Your task to perform on an android device: clear all cookies in the chrome app Image 0: 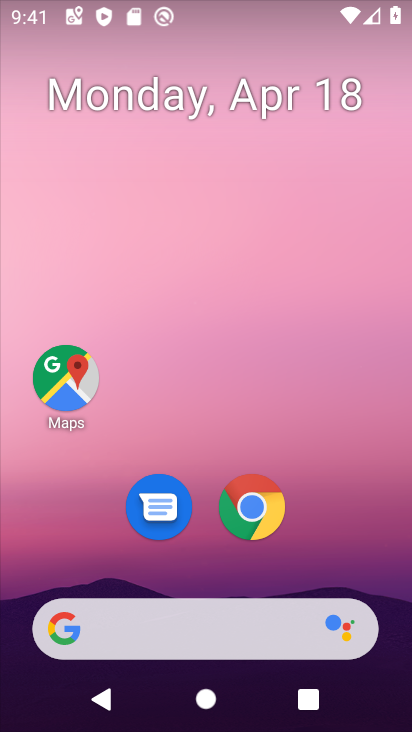
Step 0: click (268, 128)
Your task to perform on an android device: clear all cookies in the chrome app Image 1: 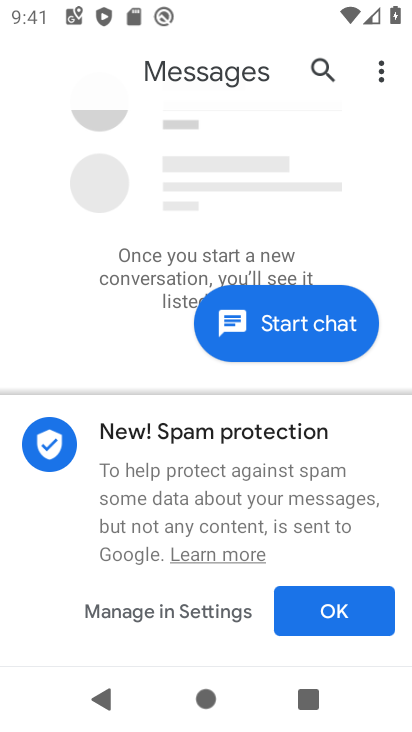
Step 1: press back button
Your task to perform on an android device: clear all cookies in the chrome app Image 2: 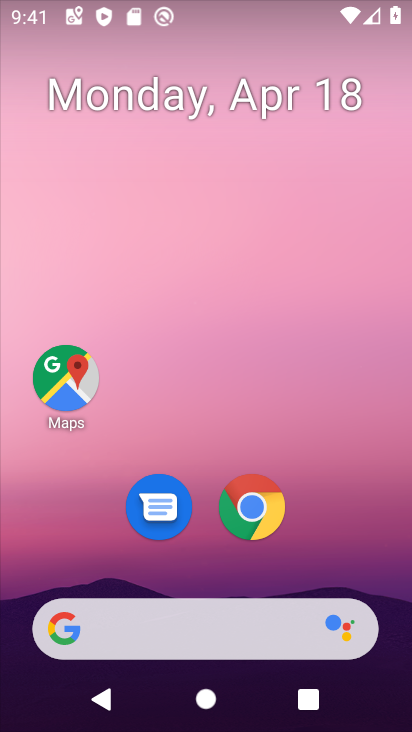
Step 2: drag from (260, 107) to (266, 4)
Your task to perform on an android device: clear all cookies in the chrome app Image 3: 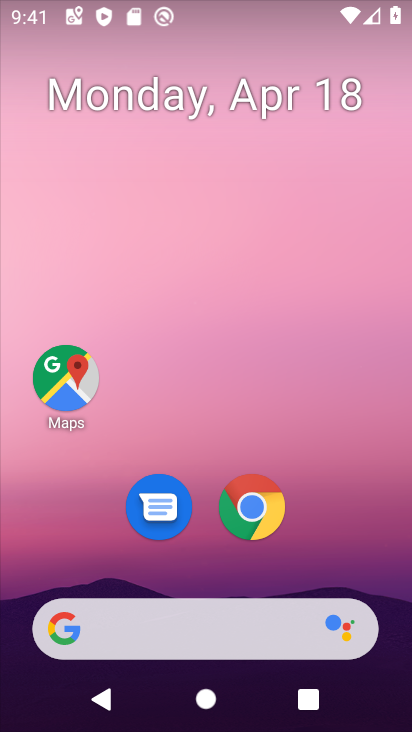
Step 3: drag from (220, 348) to (277, 14)
Your task to perform on an android device: clear all cookies in the chrome app Image 4: 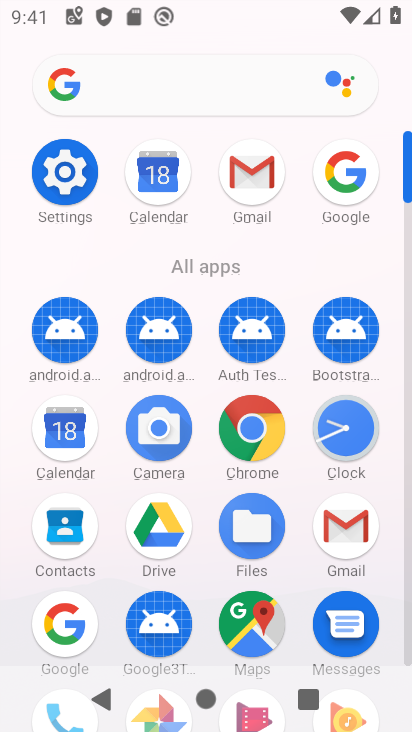
Step 4: click (246, 418)
Your task to perform on an android device: clear all cookies in the chrome app Image 5: 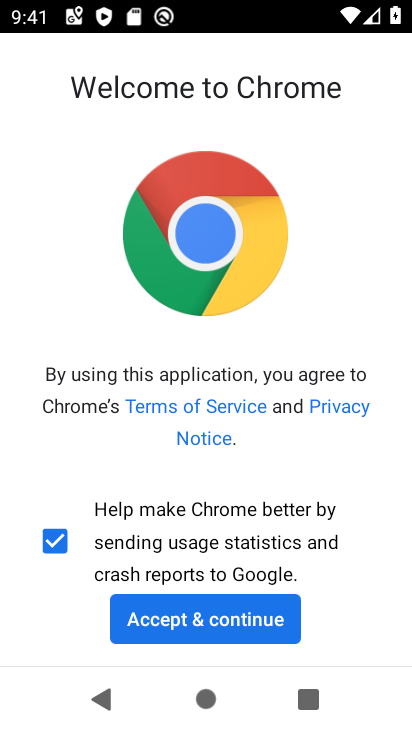
Step 5: click (220, 617)
Your task to perform on an android device: clear all cookies in the chrome app Image 6: 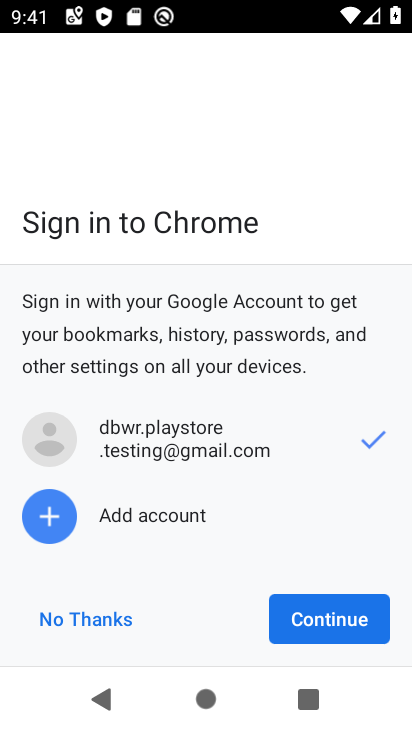
Step 6: click (345, 620)
Your task to perform on an android device: clear all cookies in the chrome app Image 7: 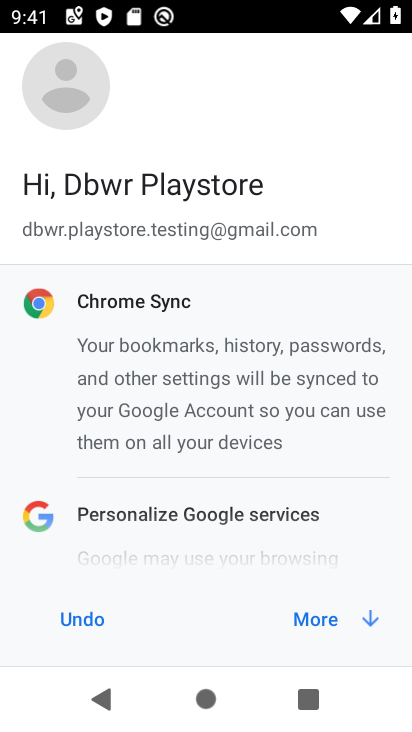
Step 7: click (345, 620)
Your task to perform on an android device: clear all cookies in the chrome app Image 8: 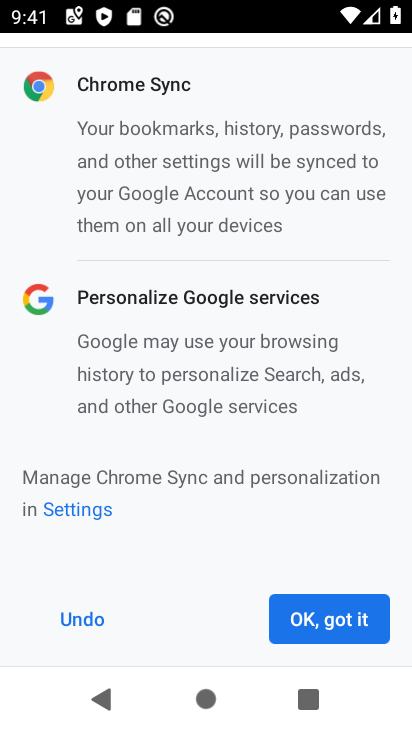
Step 8: click (340, 621)
Your task to perform on an android device: clear all cookies in the chrome app Image 9: 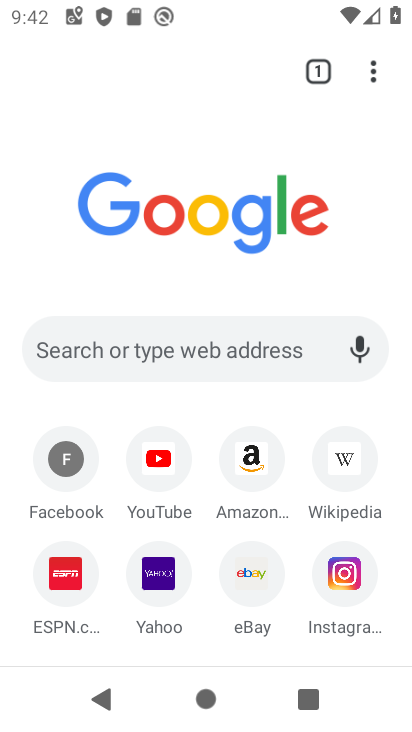
Step 9: click (384, 77)
Your task to perform on an android device: clear all cookies in the chrome app Image 10: 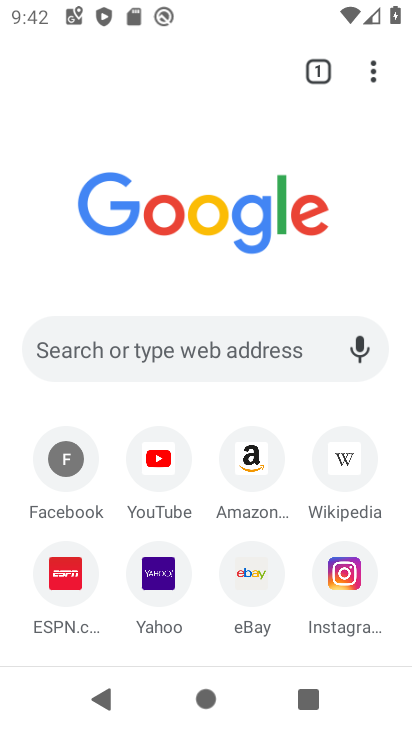
Step 10: drag from (379, 77) to (247, 516)
Your task to perform on an android device: clear all cookies in the chrome app Image 11: 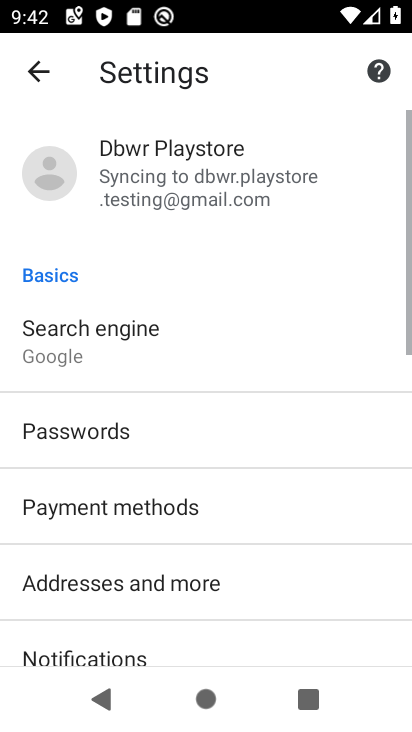
Step 11: drag from (195, 588) to (290, 246)
Your task to perform on an android device: clear all cookies in the chrome app Image 12: 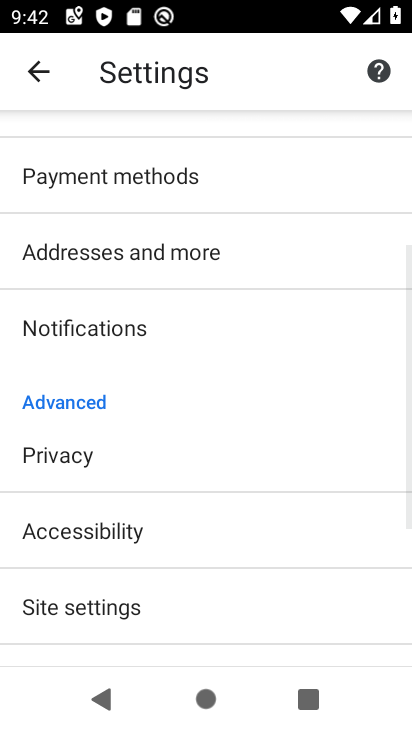
Step 12: drag from (170, 614) to (228, 387)
Your task to perform on an android device: clear all cookies in the chrome app Image 13: 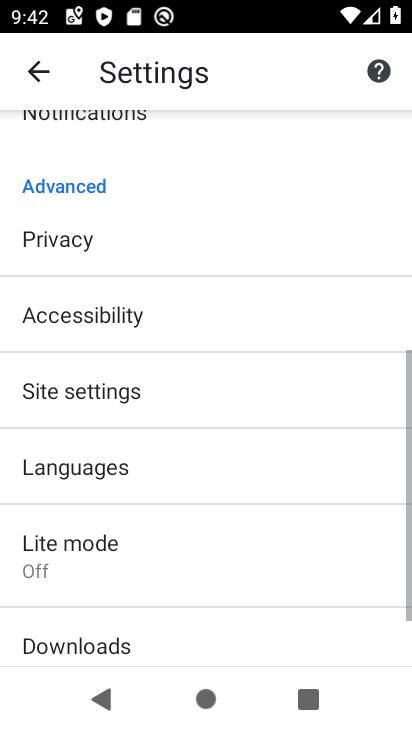
Step 13: drag from (197, 594) to (259, 369)
Your task to perform on an android device: clear all cookies in the chrome app Image 14: 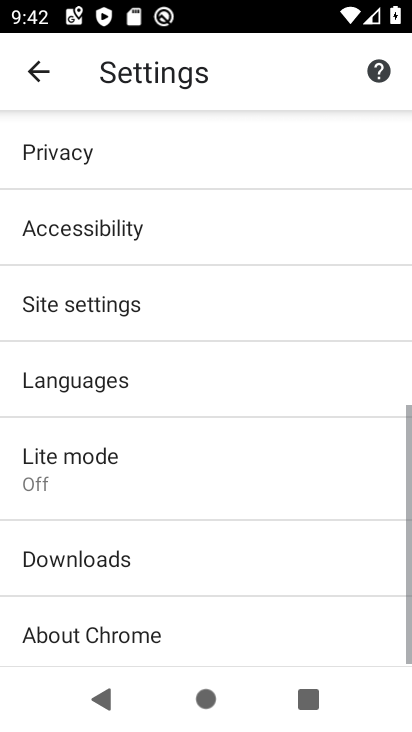
Step 14: drag from (216, 373) to (179, 584)
Your task to perform on an android device: clear all cookies in the chrome app Image 15: 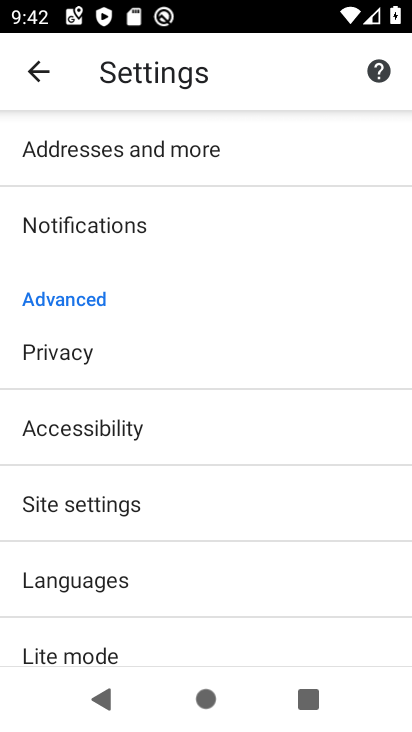
Step 15: click (152, 357)
Your task to perform on an android device: clear all cookies in the chrome app Image 16: 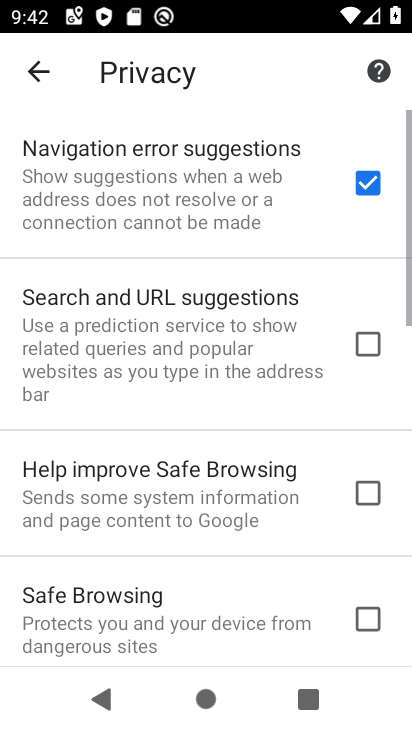
Step 16: drag from (188, 504) to (276, 157)
Your task to perform on an android device: clear all cookies in the chrome app Image 17: 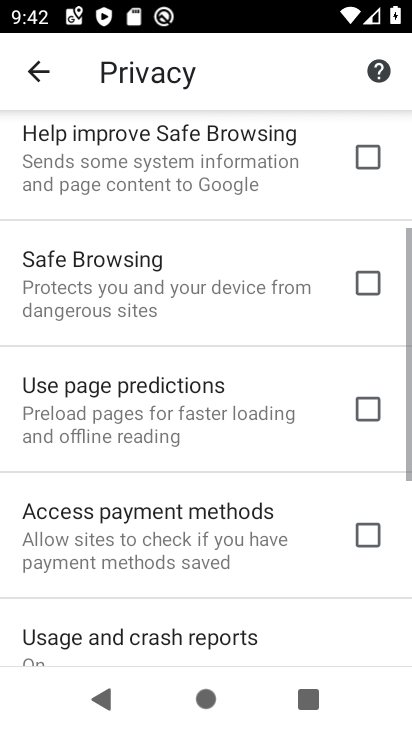
Step 17: drag from (196, 448) to (297, 179)
Your task to perform on an android device: clear all cookies in the chrome app Image 18: 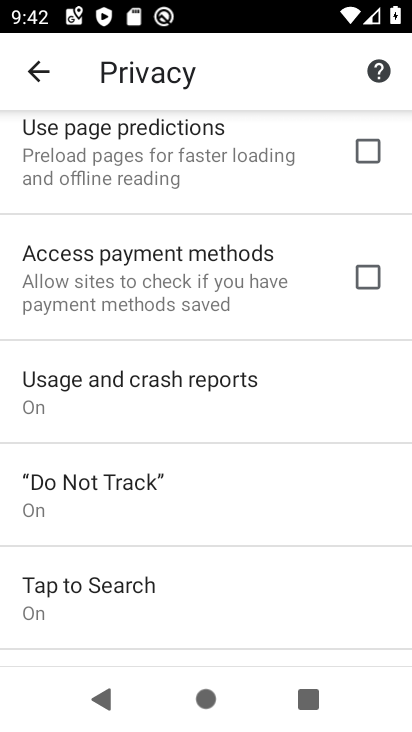
Step 18: drag from (207, 587) to (315, 272)
Your task to perform on an android device: clear all cookies in the chrome app Image 19: 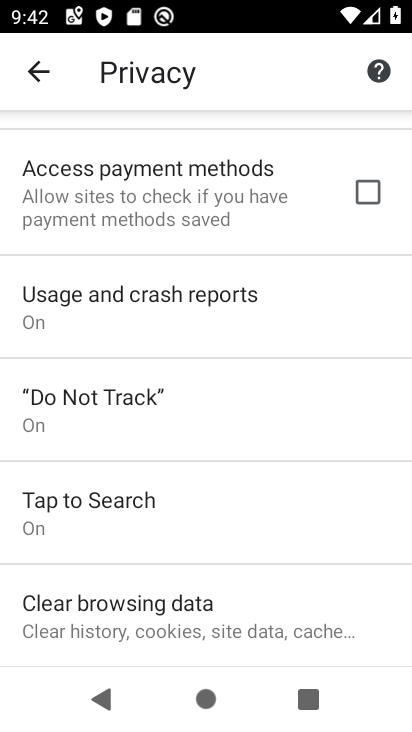
Step 19: click (138, 605)
Your task to perform on an android device: clear all cookies in the chrome app Image 20: 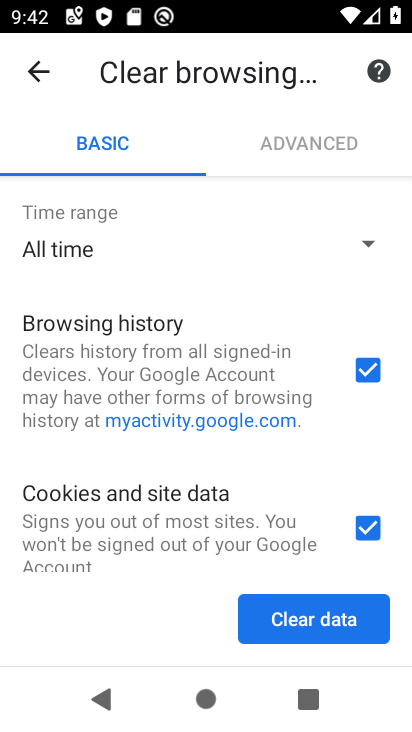
Step 20: click (368, 371)
Your task to perform on an android device: clear all cookies in the chrome app Image 21: 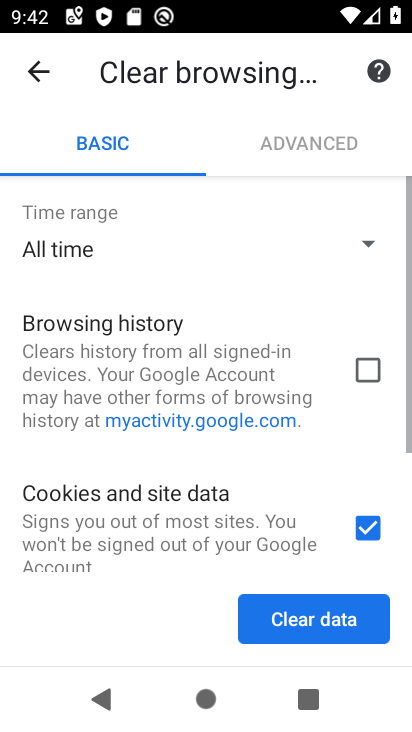
Step 21: drag from (172, 500) to (257, 248)
Your task to perform on an android device: clear all cookies in the chrome app Image 22: 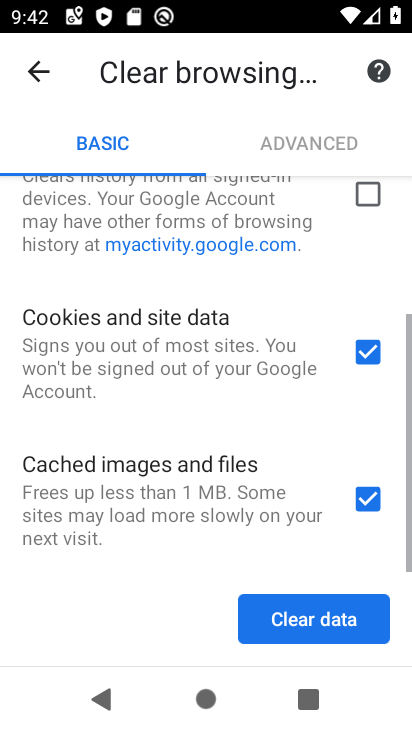
Step 22: click (357, 504)
Your task to perform on an android device: clear all cookies in the chrome app Image 23: 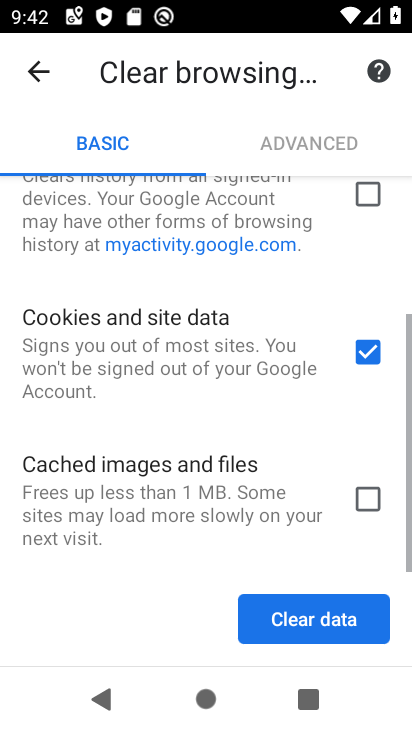
Step 23: click (332, 622)
Your task to perform on an android device: clear all cookies in the chrome app Image 24: 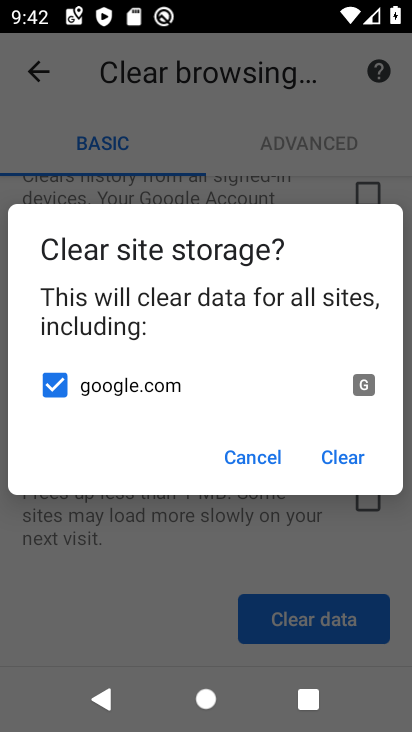
Step 24: click (353, 456)
Your task to perform on an android device: clear all cookies in the chrome app Image 25: 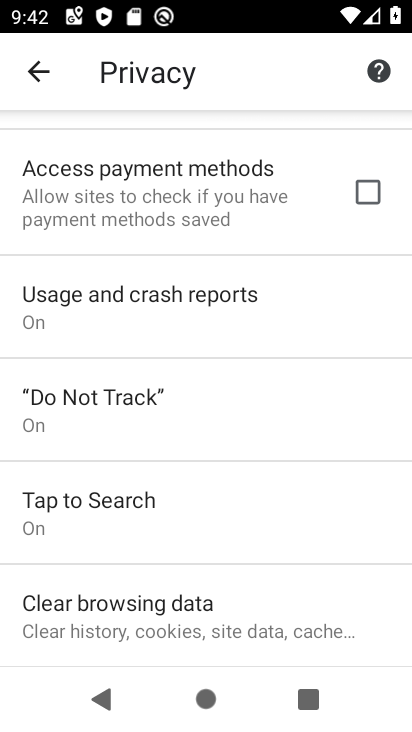
Step 25: task complete